Your task to perform on an android device: Go to notification settings Image 0: 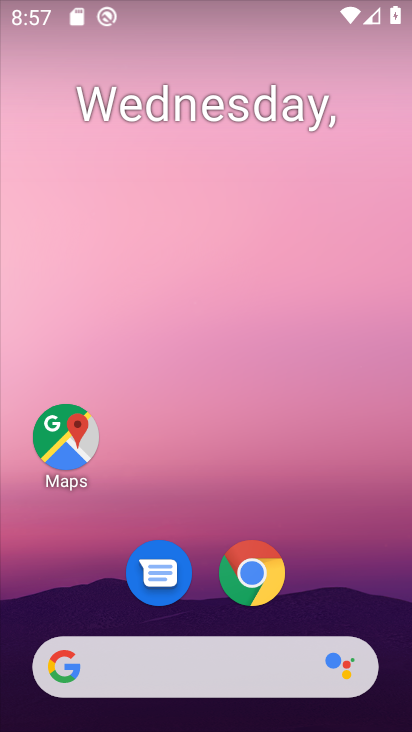
Step 0: drag from (68, 621) to (284, 162)
Your task to perform on an android device: Go to notification settings Image 1: 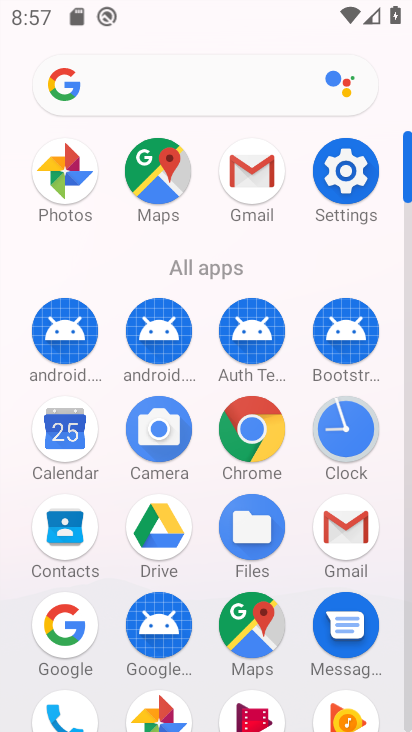
Step 1: drag from (209, 503) to (297, 249)
Your task to perform on an android device: Go to notification settings Image 2: 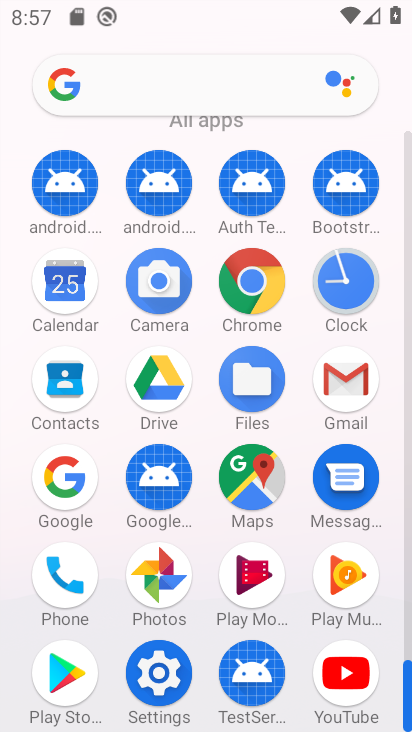
Step 2: click (160, 686)
Your task to perform on an android device: Go to notification settings Image 3: 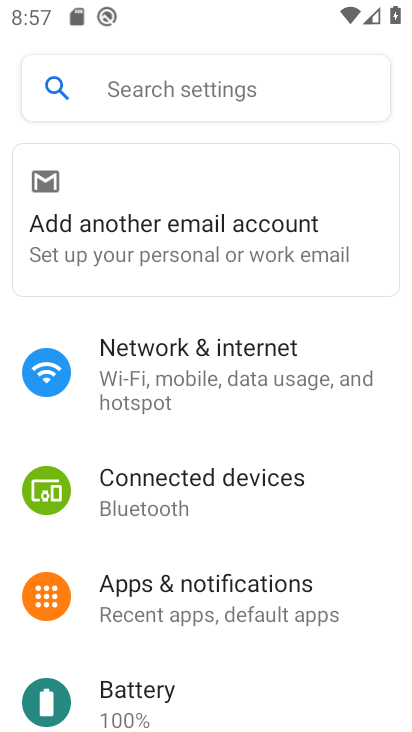
Step 3: click (163, 598)
Your task to perform on an android device: Go to notification settings Image 4: 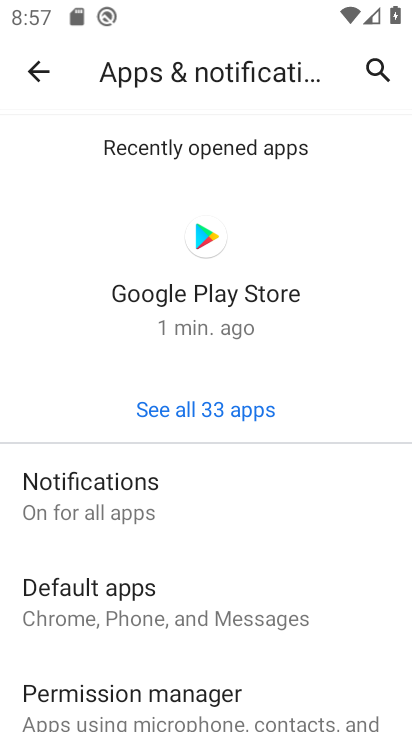
Step 4: click (150, 505)
Your task to perform on an android device: Go to notification settings Image 5: 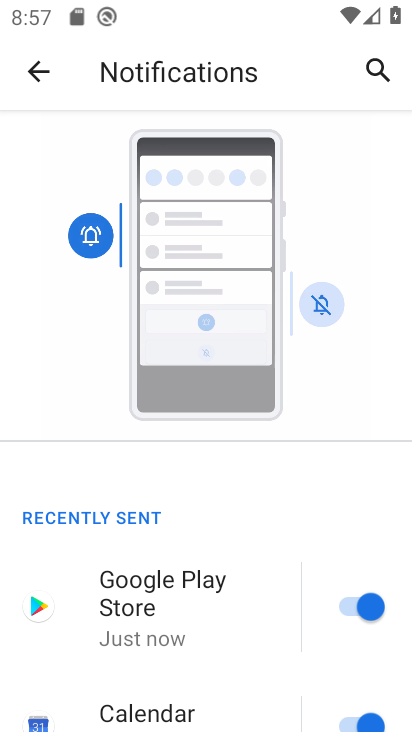
Step 5: task complete